Your task to perform on an android device: turn off javascript in the chrome app Image 0: 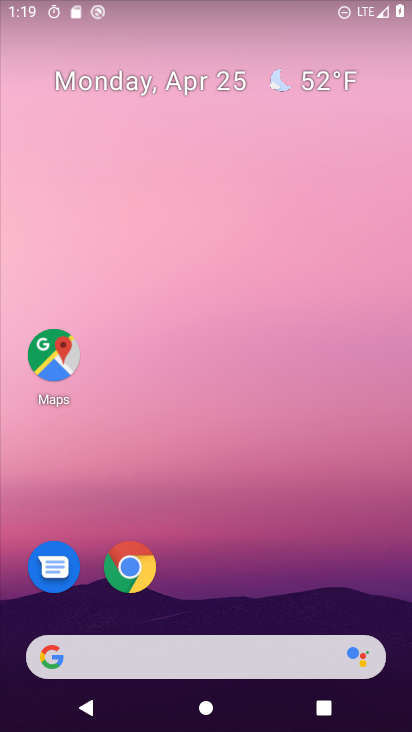
Step 0: click (131, 563)
Your task to perform on an android device: turn off javascript in the chrome app Image 1: 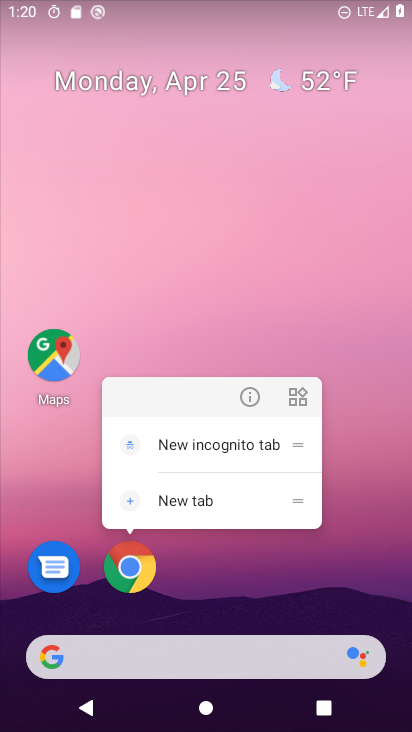
Step 1: click (130, 563)
Your task to perform on an android device: turn off javascript in the chrome app Image 2: 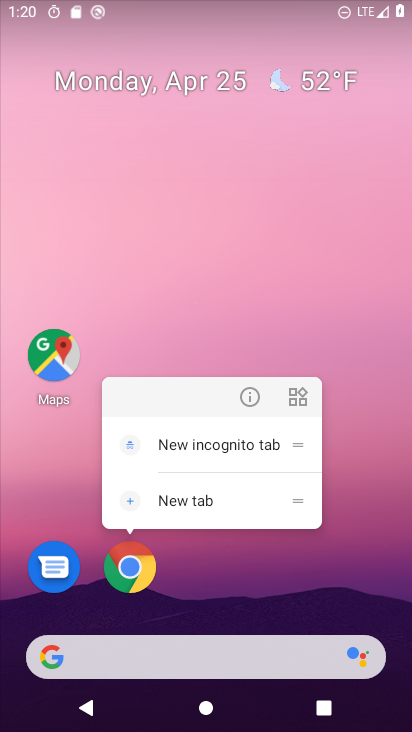
Step 2: click (130, 564)
Your task to perform on an android device: turn off javascript in the chrome app Image 3: 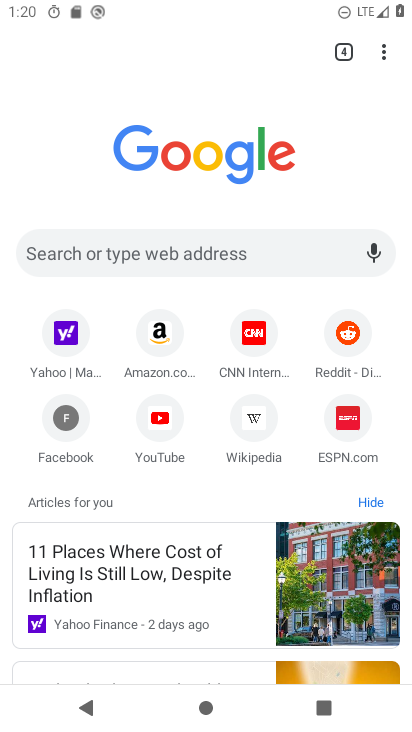
Step 3: drag from (385, 53) to (248, 502)
Your task to perform on an android device: turn off javascript in the chrome app Image 4: 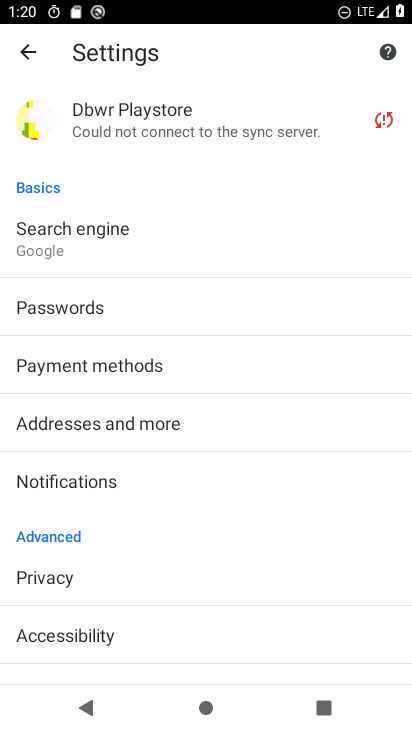
Step 4: drag from (248, 547) to (215, 248)
Your task to perform on an android device: turn off javascript in the chrome app Image 5: 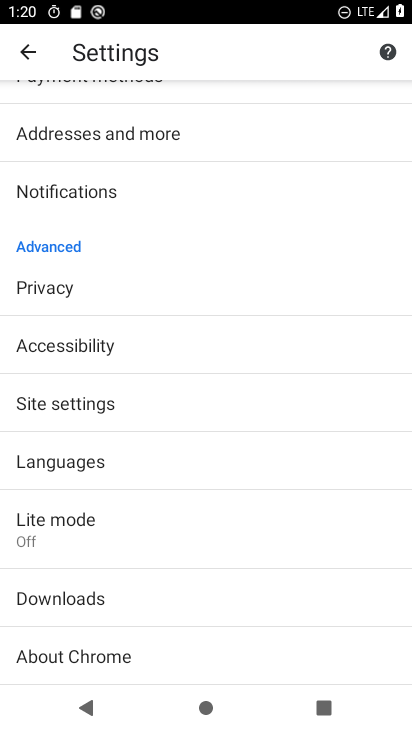
Step 5: click (196, 410)
Your task to perform on an android device: turn off javascript in the chrome app Image 6: 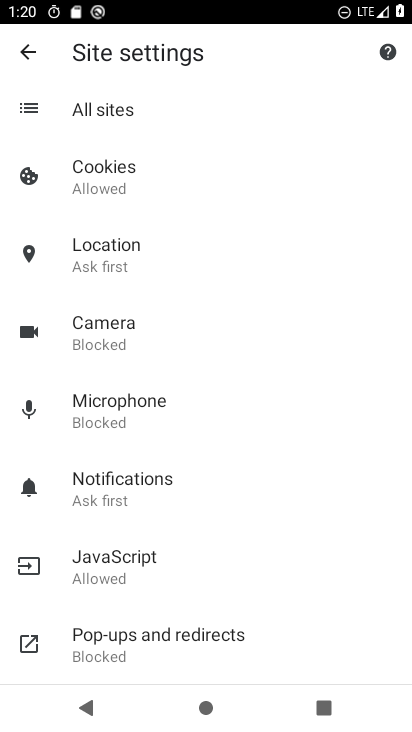
Step 6: click (184, 553)
Your task to perform on an android device: turn off javascript in the chrome app Image 7: 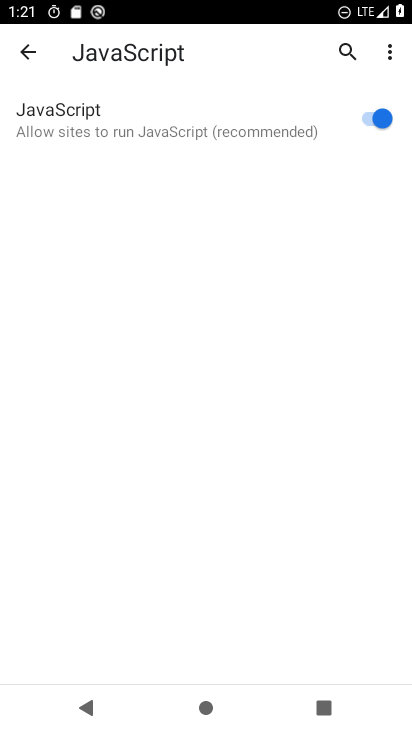
Step 7: click (369, 119)
Your task to perform on an android device: turn off javascript in the chrome app Image 8: 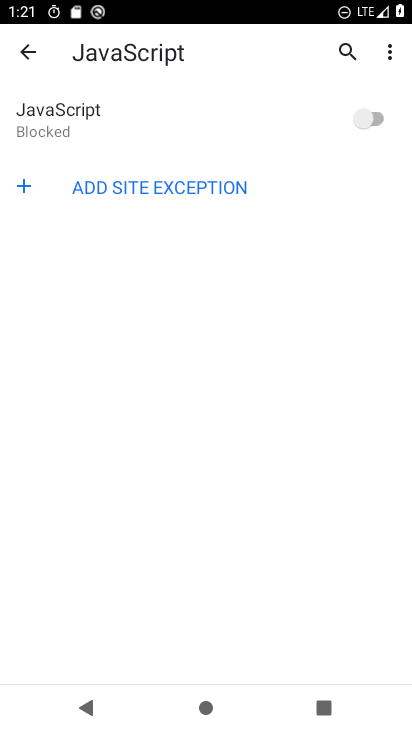
Step 8: task complete